Your task to perform on an android device: Open the web browser Image 0: 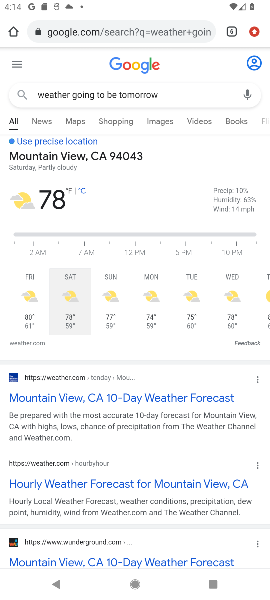
Step 0: press back button
Your task to perform on an android device: Open the web browser Image 1: 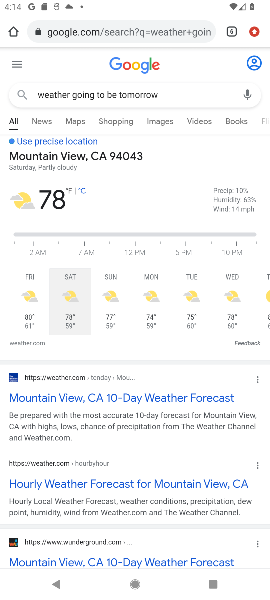
Step 1: press back button
Your task to perform on an android device: Open the web browser Image 2: 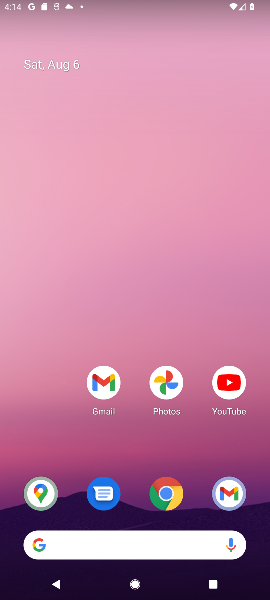
Step 2: drag from (174, 566) to (174, 467)
Your task to perform on an android device: Open the web browser Image 3: 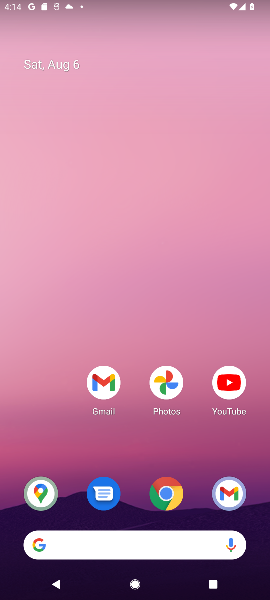
Step 3: drag from (170, 557) to (163, 247)
Your task to perform on an android device: Open the web browser Image 4: 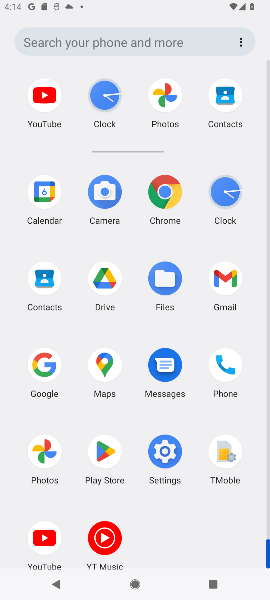
Step 4: drag from (158, 527) to (121, 274)
Your task to perform on an android device: Open the web browser Image 5: 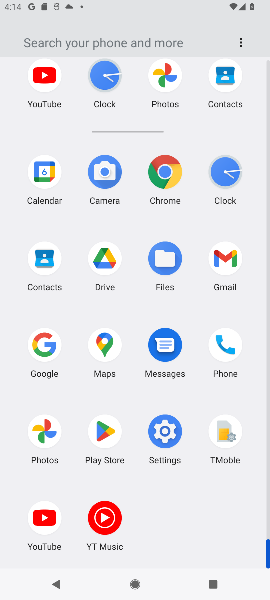
Step 5: click (162, 172)
Your task to perform on an android device: Open the web browser Image 6: 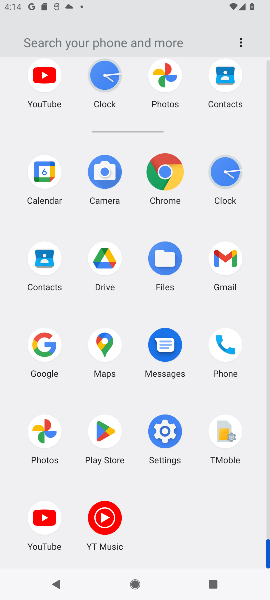
Step 6: click (162, 172)
Your task to perform on an android device: Open the web browser Image 7: 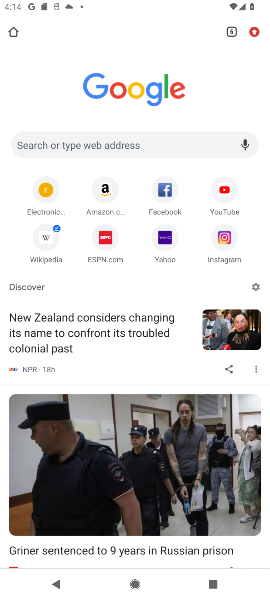
Step 7: click (162, 172)
Your task to perform on an android device: Open the web browser Image 8: 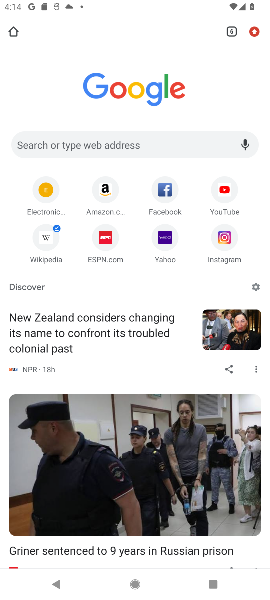
Step 8: click (45, 141)
Your task to perform on an android device: Open the web browser Image 9: 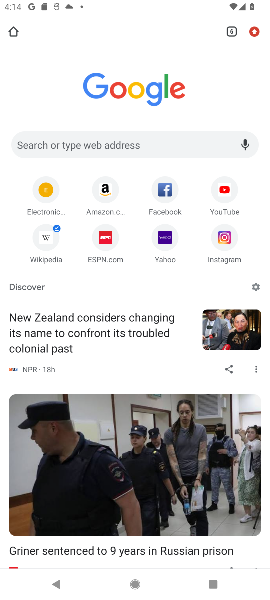
Step 9: click (45, 141)
Your task to perform on an android device: Open the web browser Image 10: 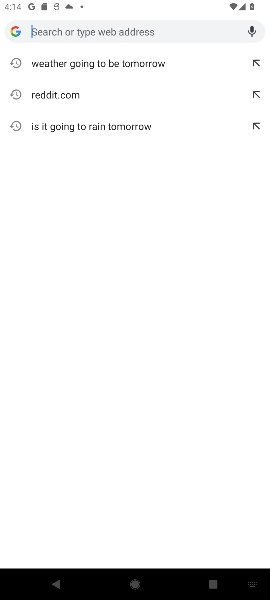
Step 10: click (260, 62)
Your task to perform on an android device: Open the web browser Image 11: 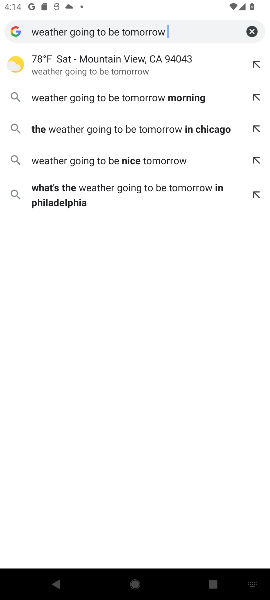
Step 11: click (246, 28)
Your task to perform on an android device: Open the web browser Image 12: 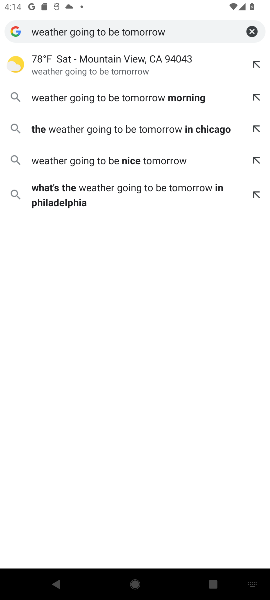
Step 12: click (246, 28)
Your task to perform on an android device: Open the web browser Image 13: 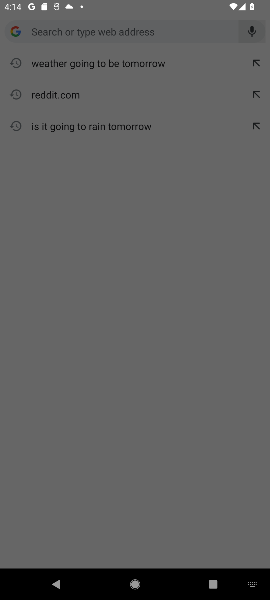
Step 13: click (246, 28)
Your task to perform on an android device: Open the web browser Image 14: 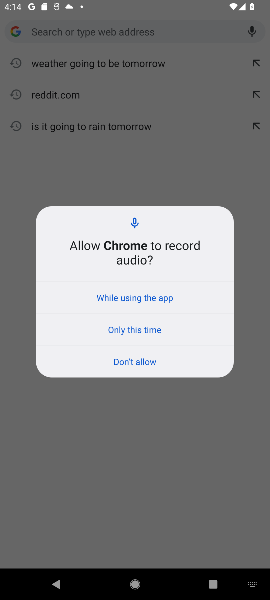
Step 14: click (213, 163)
Your task to perform on an android device: Open the web browser Image 15: 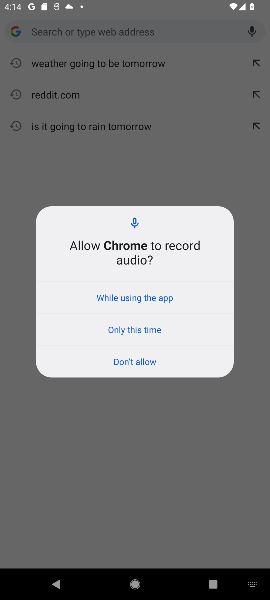
Step 15: click (216, 161)
Your task to perform on an android device: Open the web browser Image 16: 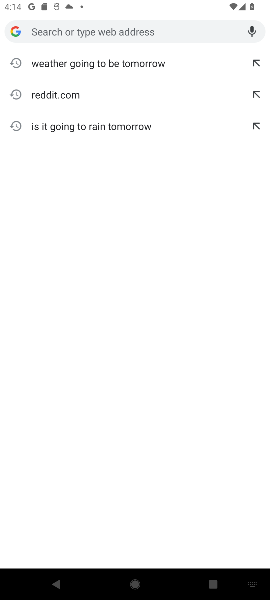
Step 16: press back button
Your task to perform on an android device: Open the web browser Image 17: 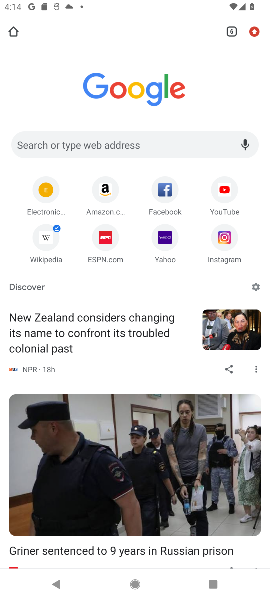
Step 17: drag from (258, 25) to (244, 389)
Your task to perform on an android device: Open the web browser Image 18: 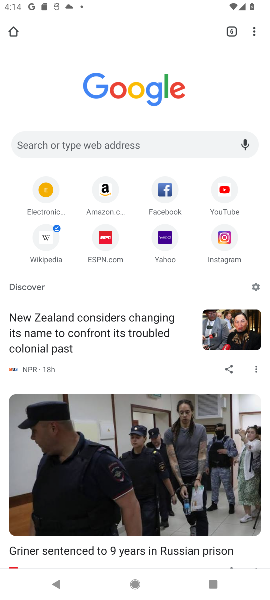
Step 18: click (252, 27)
Your task to perform on an android device: Open the web browser Image 19: 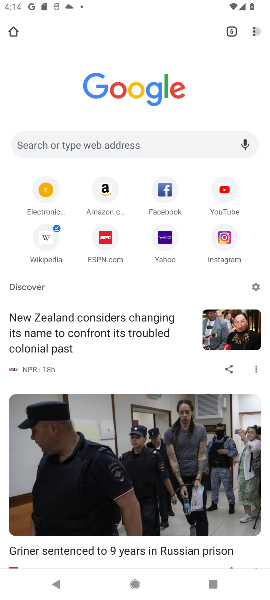
Step 19: click (249, 30)
Your task to perform on an android device: Open the web browser Image 20: 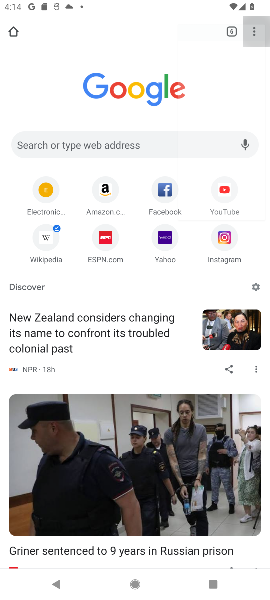
Step 20: click (250, 30)
Your task to perform on an android device: Open the web browser Image 21: 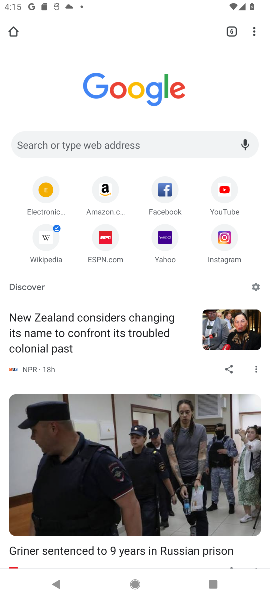
Step 21: click (250, 30)
Your task to perform on an android device: Open the web browser Image 22: 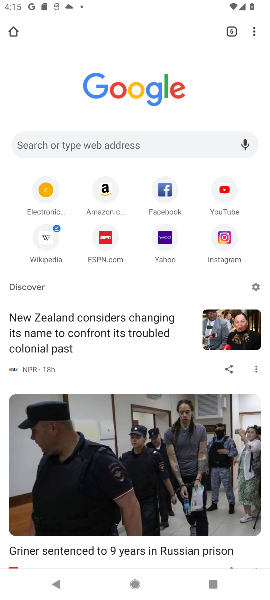
Step 22: drag from (252, 27) to (168, 98)
Your task to perform on an android device: Open the web browser Image 23: 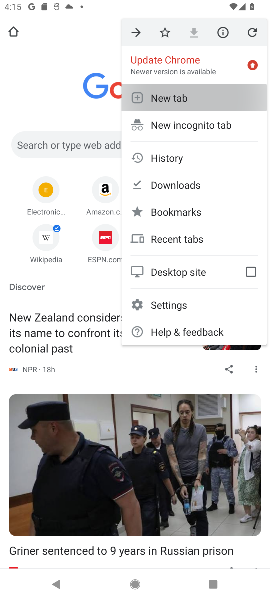
Step 23: click (168, 98)
Your task to perform on an android device: Open the web browser Image 24: 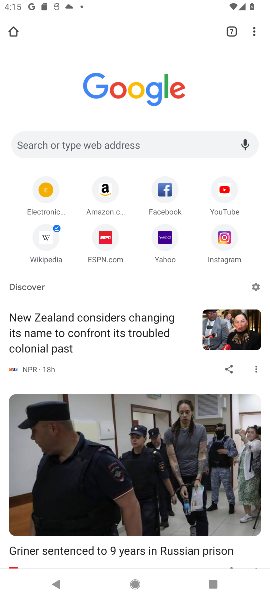
Step 24: task complete